Your task to perform on an android device: turn on wifi Image 0: 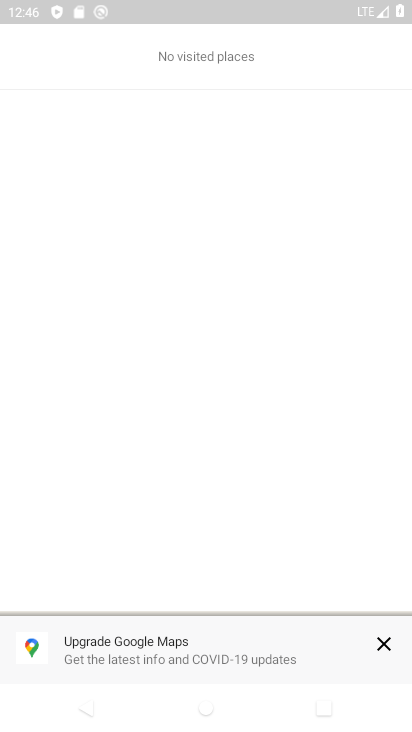
Step 0: press home button
Your task to perform on an android device: turn on wifi Image 1: 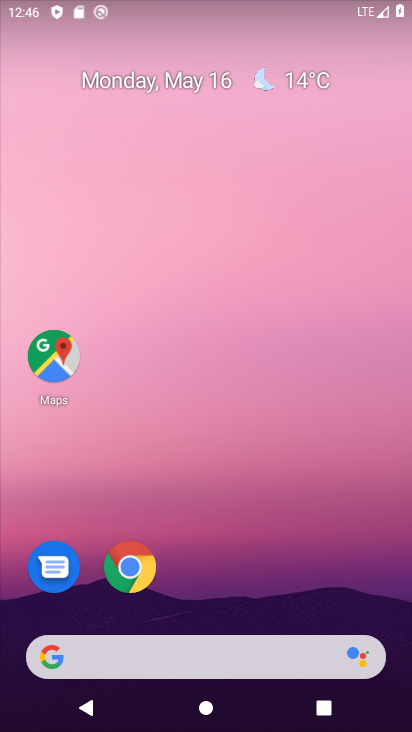
Step 1: drag from (245, 550) to (115, 57)
Your task to perform on an android device: turn on wifi Image 2: 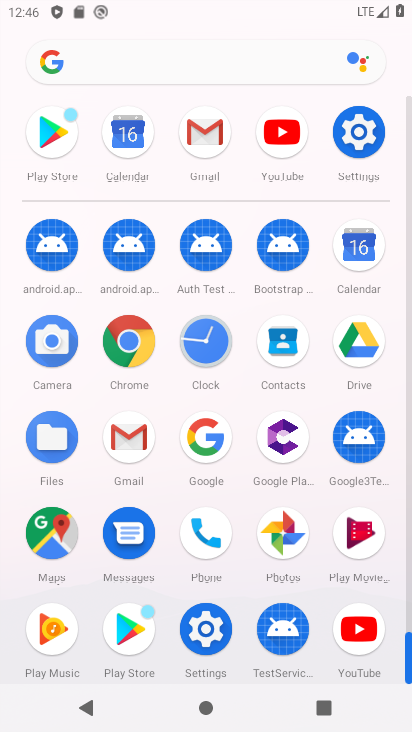
Step 2: click (358, 136)
Your task to perform on an android device: turn on wifi Image 3: 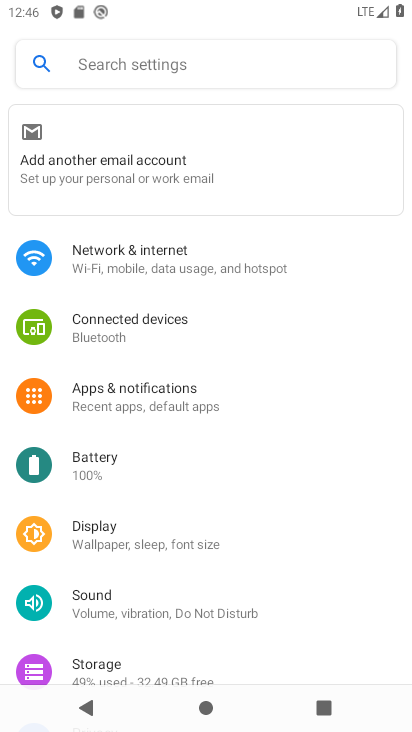
Step 3: click (120, 245)
Your task to perform on an android device: turn on wifi Image 4: 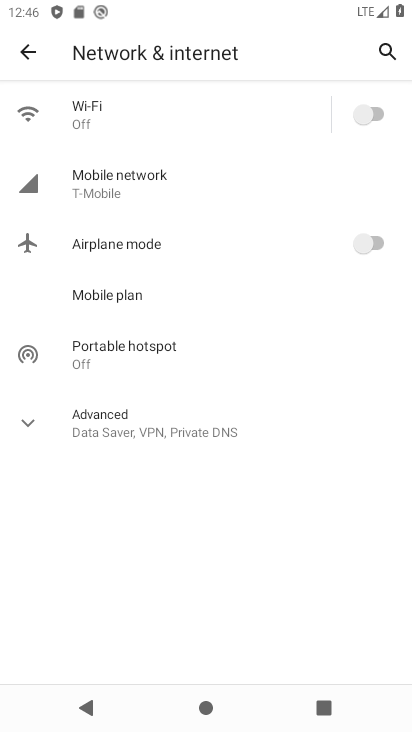
Step 4: click (359, 119)
Your task to perform on an android device: turn on wifi Image 5: 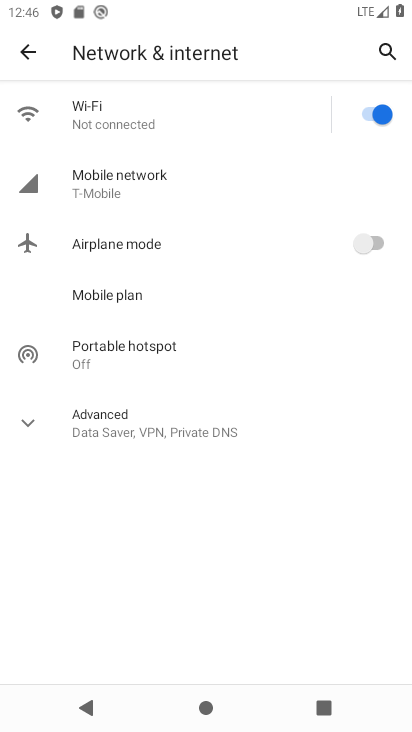
Step 5: task complete